Your task to perform on an android device: Search for flights from Mexico city to Sydney Image 0: 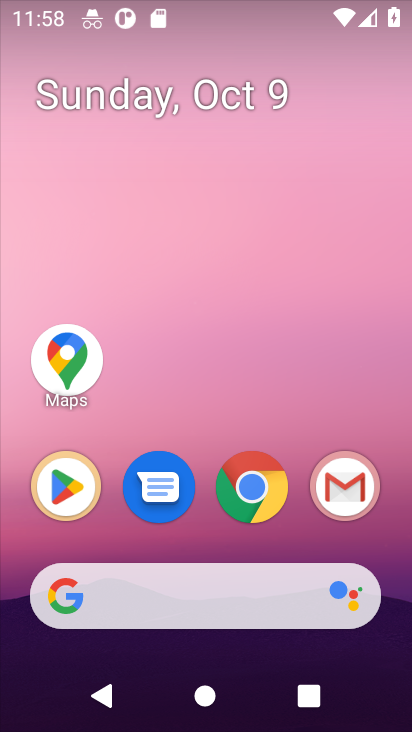
Step 0: click (242, 488)
Your task to perform on an android device: Search for flights from Mexico city to Sydney Image 1: 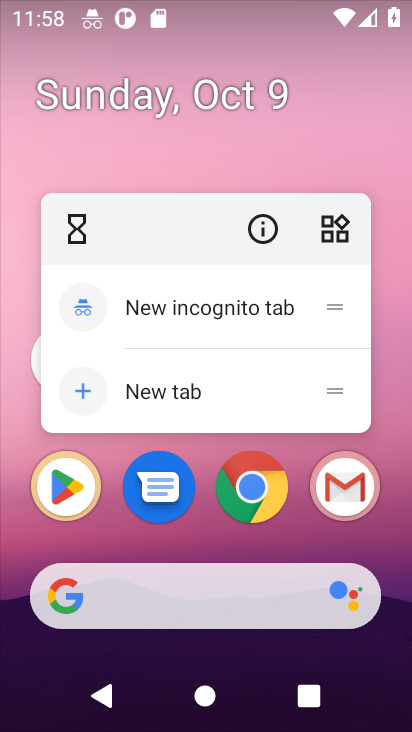
Step 1: click (263, 484)
Your task to perform on an android device: Search for flights from Mexico city to Sydney Image 2: 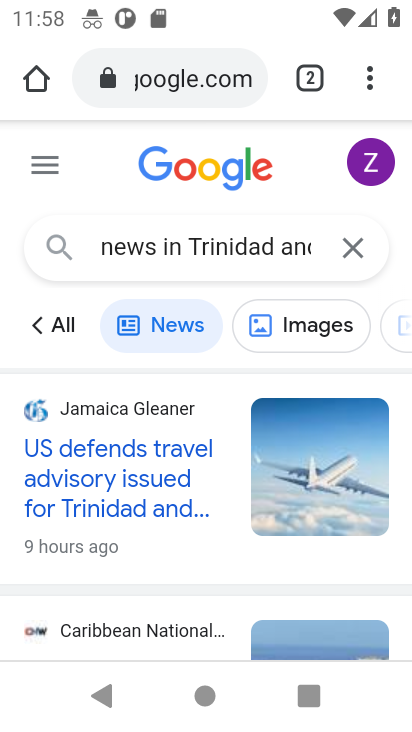
Step 2: click (225, 251)
Your task to perform on an android device: Search for flights from Mexico city to Sydney Image 3: 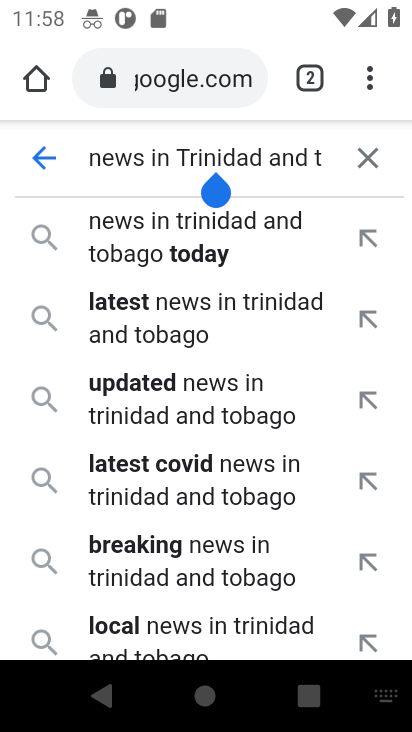
Step 3: click (367, 156)
Your task to perform on an android device: Search for flights from Mexico city to Sydney Image 4: 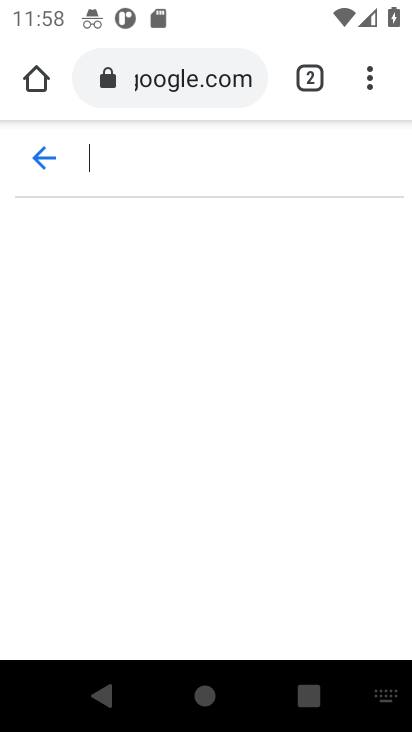
Step 4: type "flights from mexico city to sydney"
Your task to perform on an android device: Search for flights from Mexico city to Sydney Image 5: 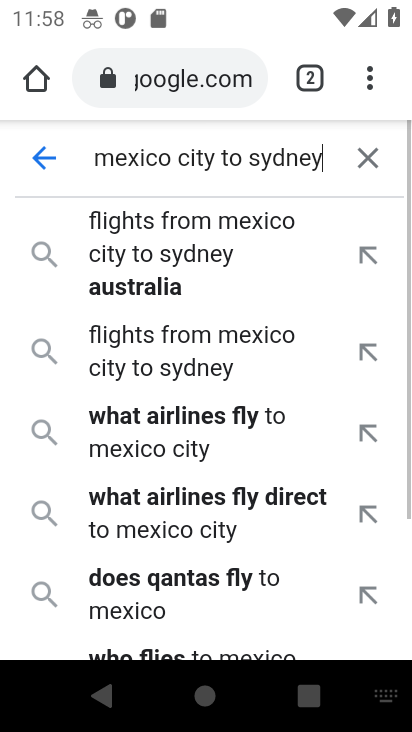
Step 5: press enter
Your task to perform on an android device: Search for flights from Mexico city to Sydney Image 6: 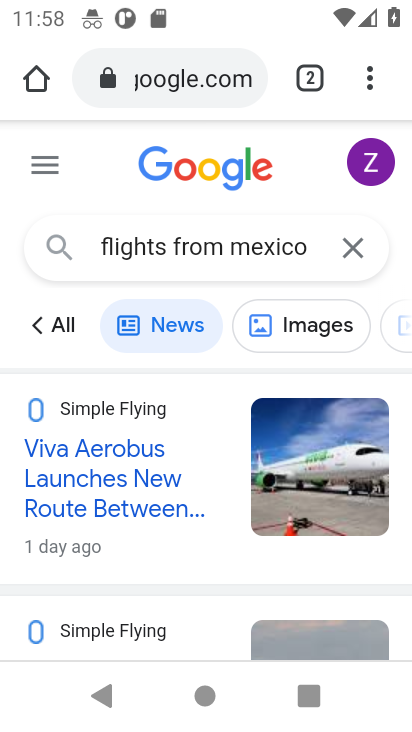
Step 6: drag from (180, 569) to (188, 219)
Your task to perform on an android device: Search for flights from Mexico city to Sydney Image 7: 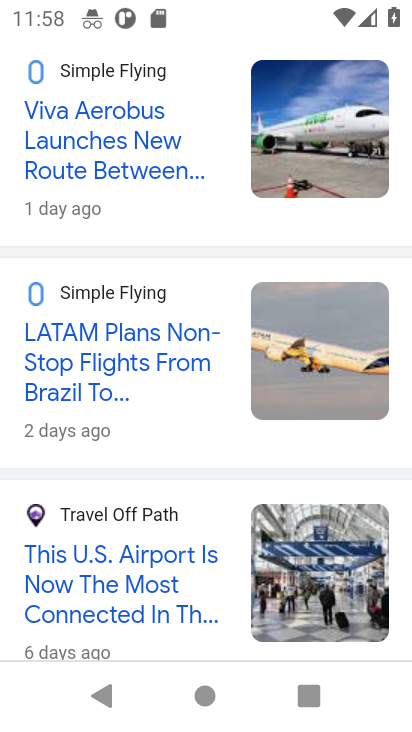
Step 7: drag from (180, 218) to (219, 572)
Your task to perform on an android device: Search for flights from Mexico city to Sydney Image 8: 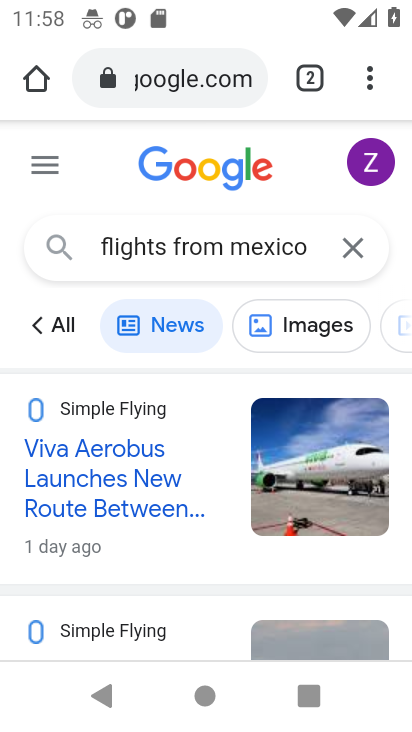
Step 8: click (59, 321)
Your task to perform on an android device: Search for flights from Mexico city to Sydney Image 9: 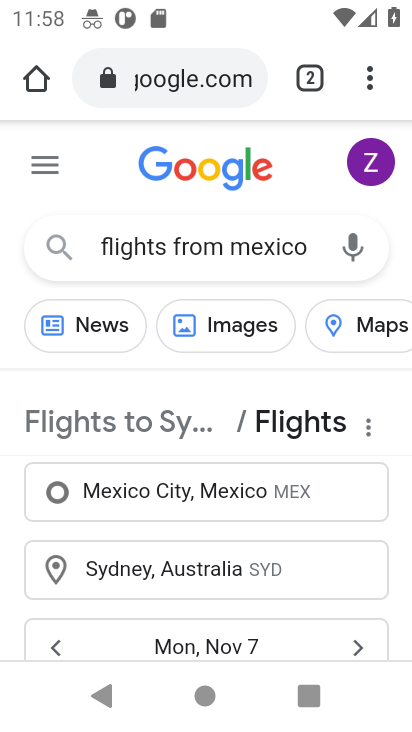
Step 9: drag from (215, 565) to (214, 261)
Your task to perform on an android device: Search for flights from Mexico city to Sydney Image 10: 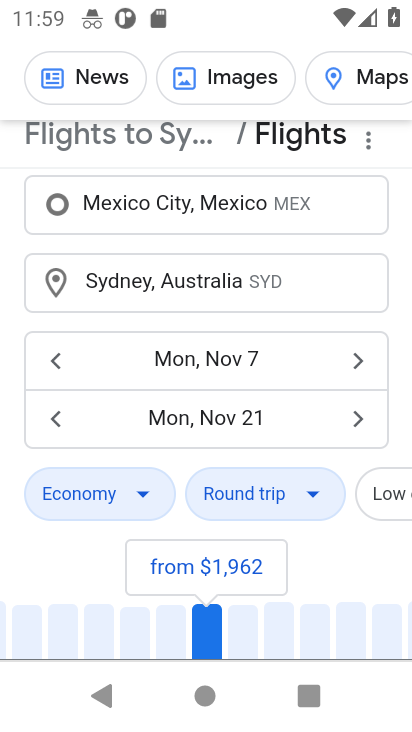
Step 10: drag from (225, 569) to (218, 283)
Your task to perform on an android device: Search for flights from Mexico city to Sydney Image 11: 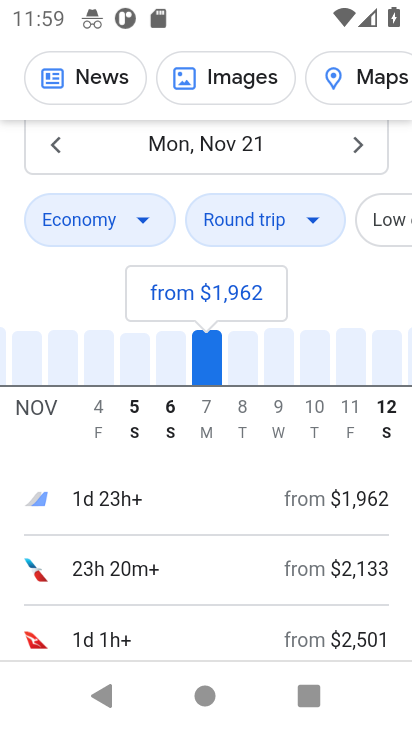
Step 11: drag from (273, 544) to (270, 252)
Your task to perform on an android device: Search for flights from Mexico city to Sydney Image 12: 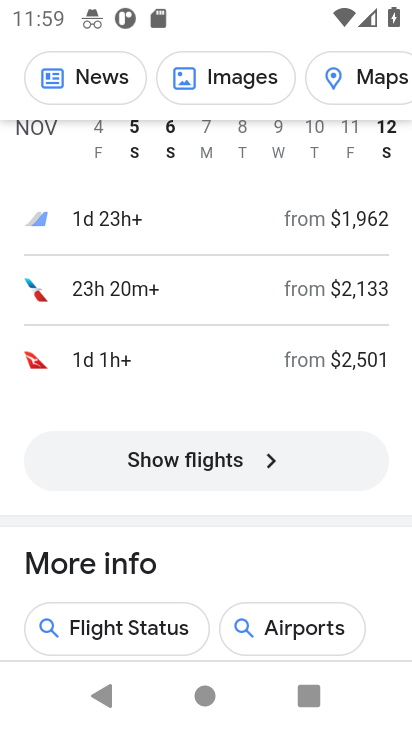
Step 12: drag from (189, 622) to (197, 567)
Your task to perform on an android device: Search for flights from Mexico city to Sydney Image 13: 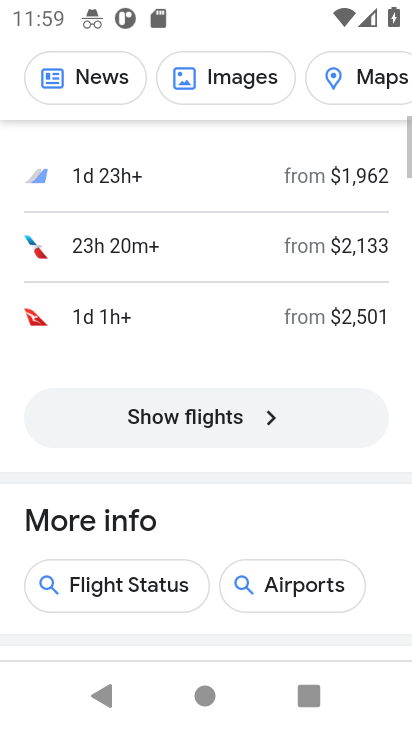
Step 13: click (212, 425)
Your task to perform on an android device: Search for flights from Mexico city to Sydney Image 14: 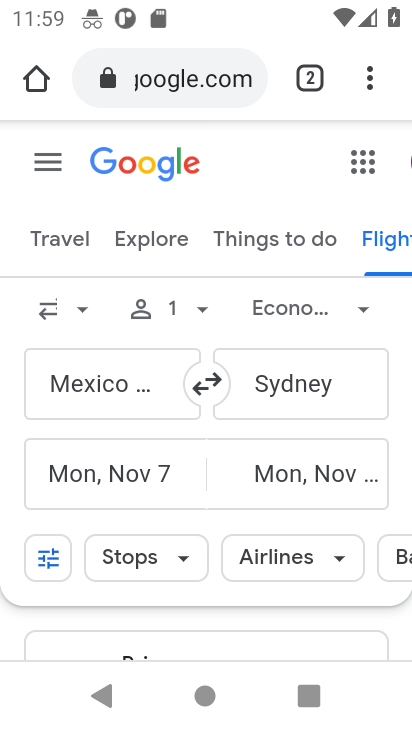
Step 14: task complete